Your task to perform on an android device: open app "Gmail" (install if not already installed) Image 0: 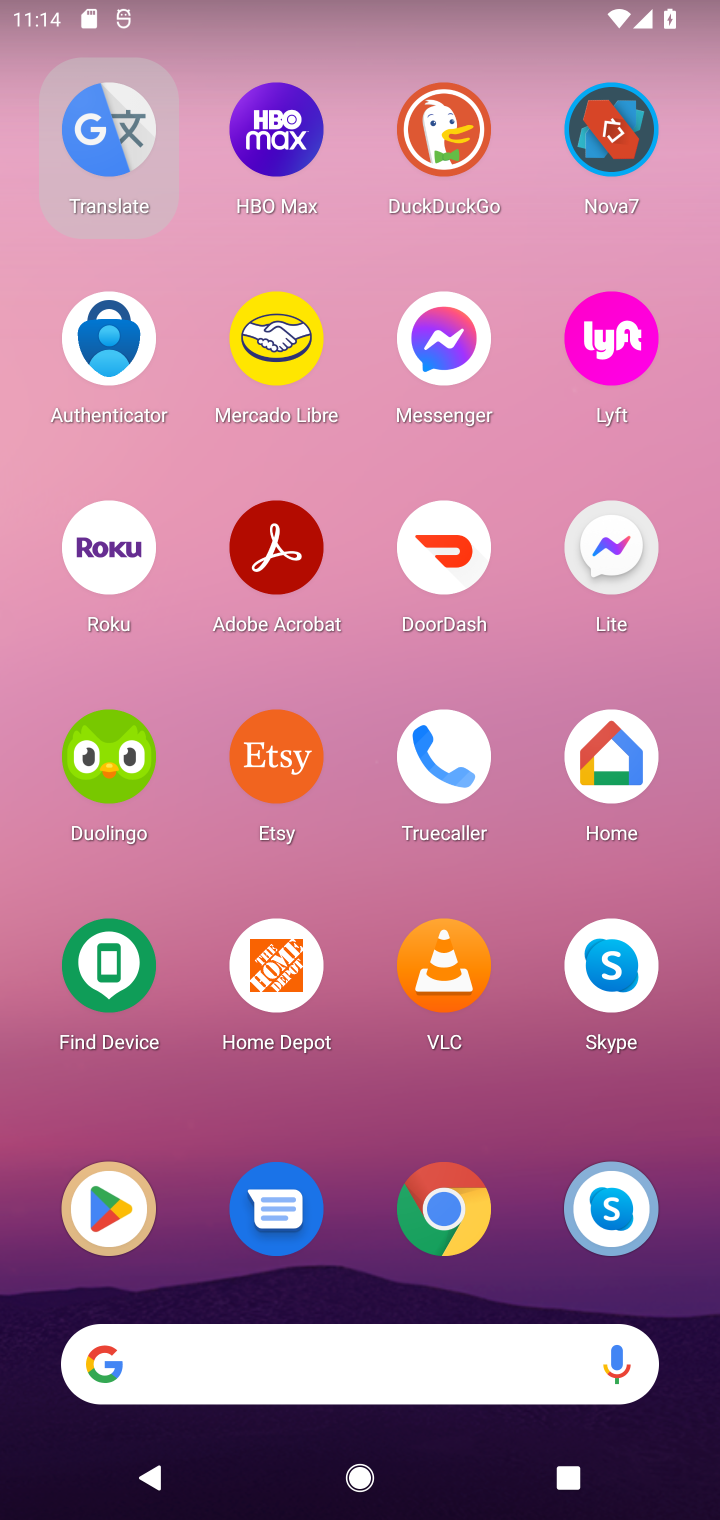
Step 0: drag from (520, 957) to (525, 142)
Your task to perform on an android device: open app "Gmail" (install if not already installed) Image 1: 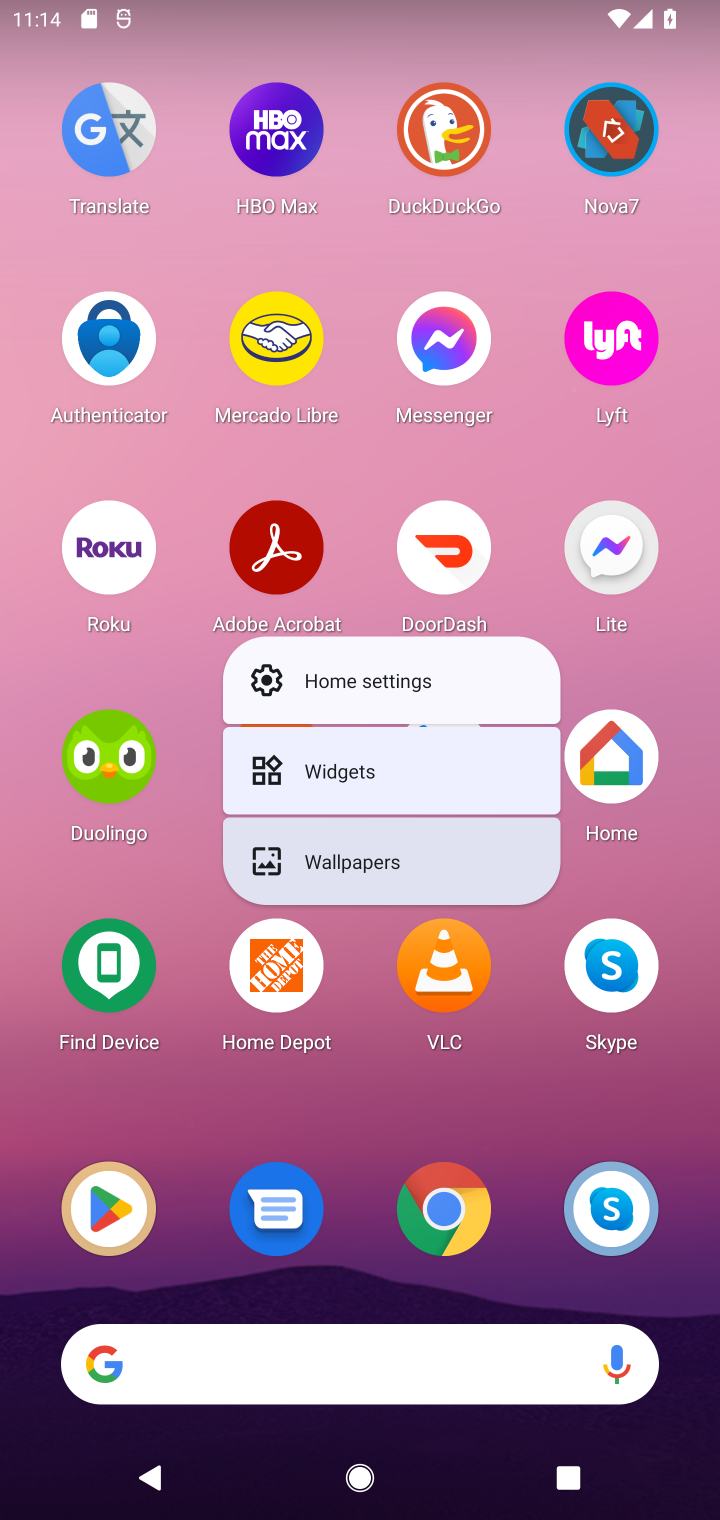
Step 1: click (523, 453)
Your task to perform on an android device: open app "Gmail" (install if not already installed) Image 2: 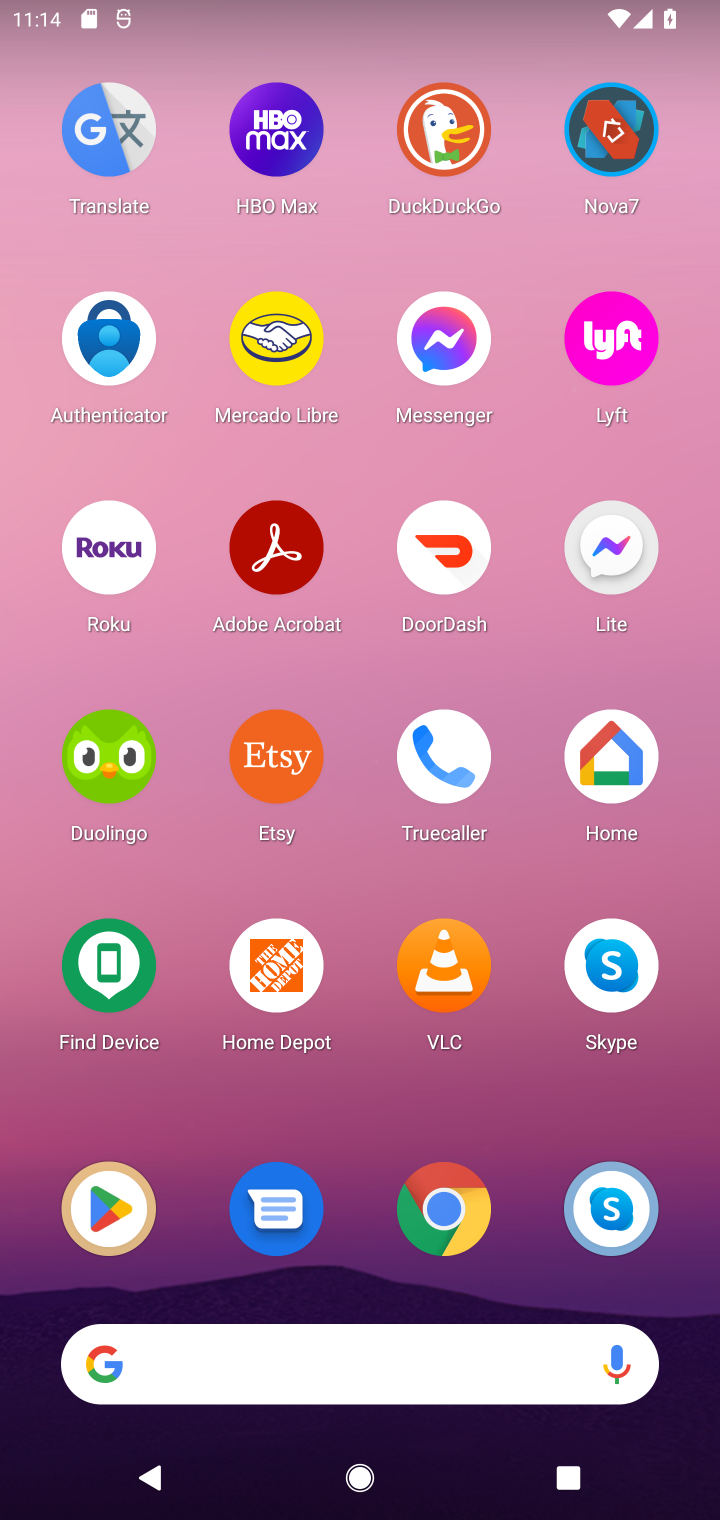
Step 2: drag from (527, 783) to (531, 142)
Your task to perform on an android device: open app "Gmail" (install if not already installed) Image 3: 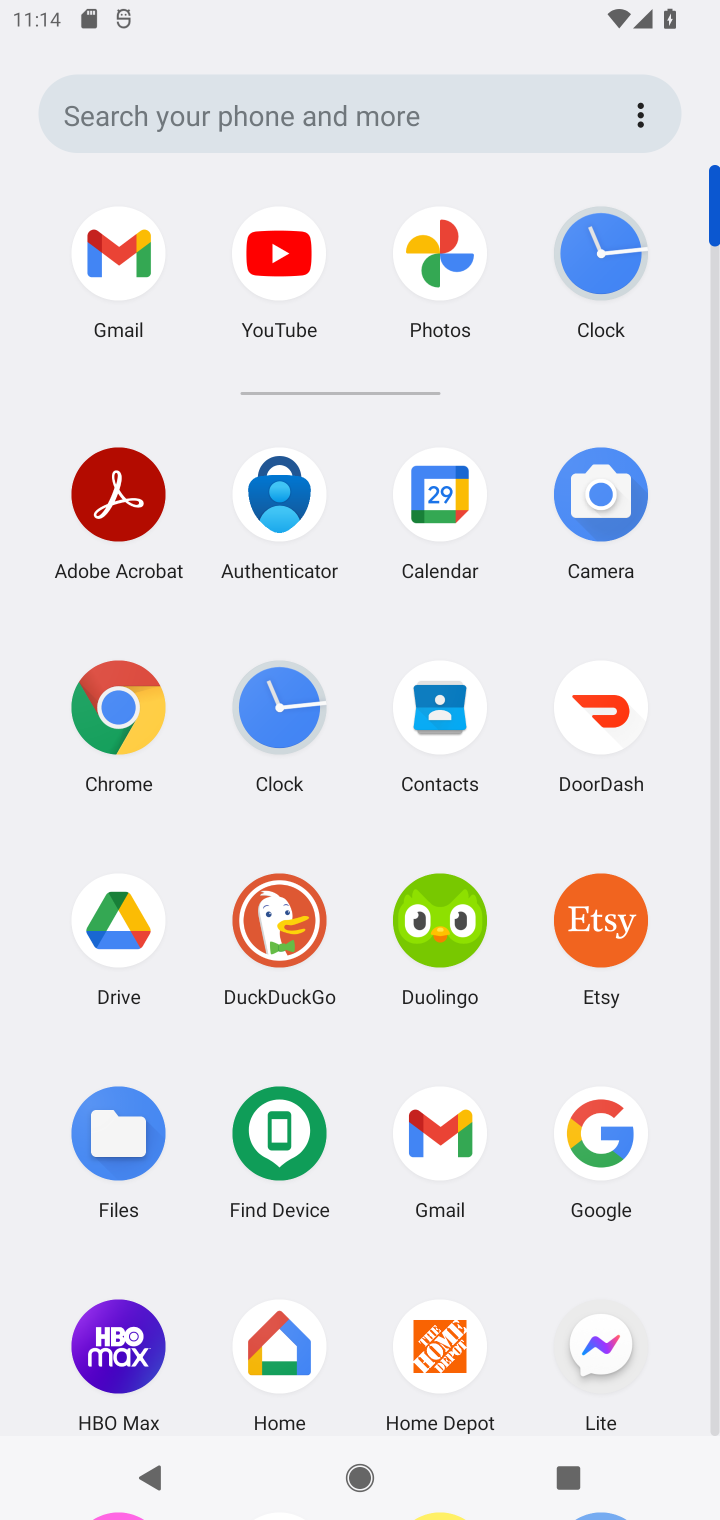
Step 3: drag from (552, 825) to (564, 302)
Your task to perform on an android device: open app "Gmail" (install if not already installed) Image 4: 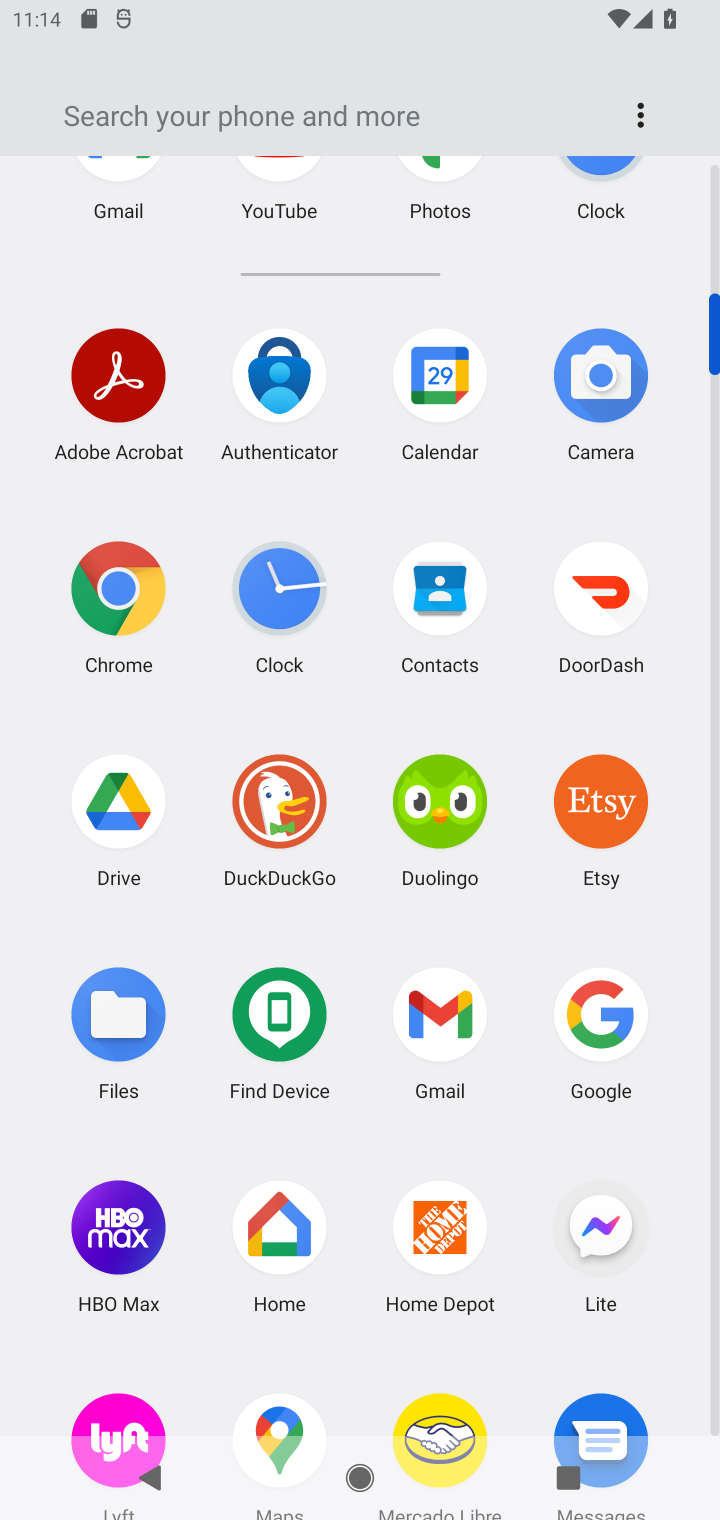
Step 4: drag from (533, 1107) to (536, 541)
Your task to perform on an android device: open app "Gmail" (install if not already installed) Image 5: 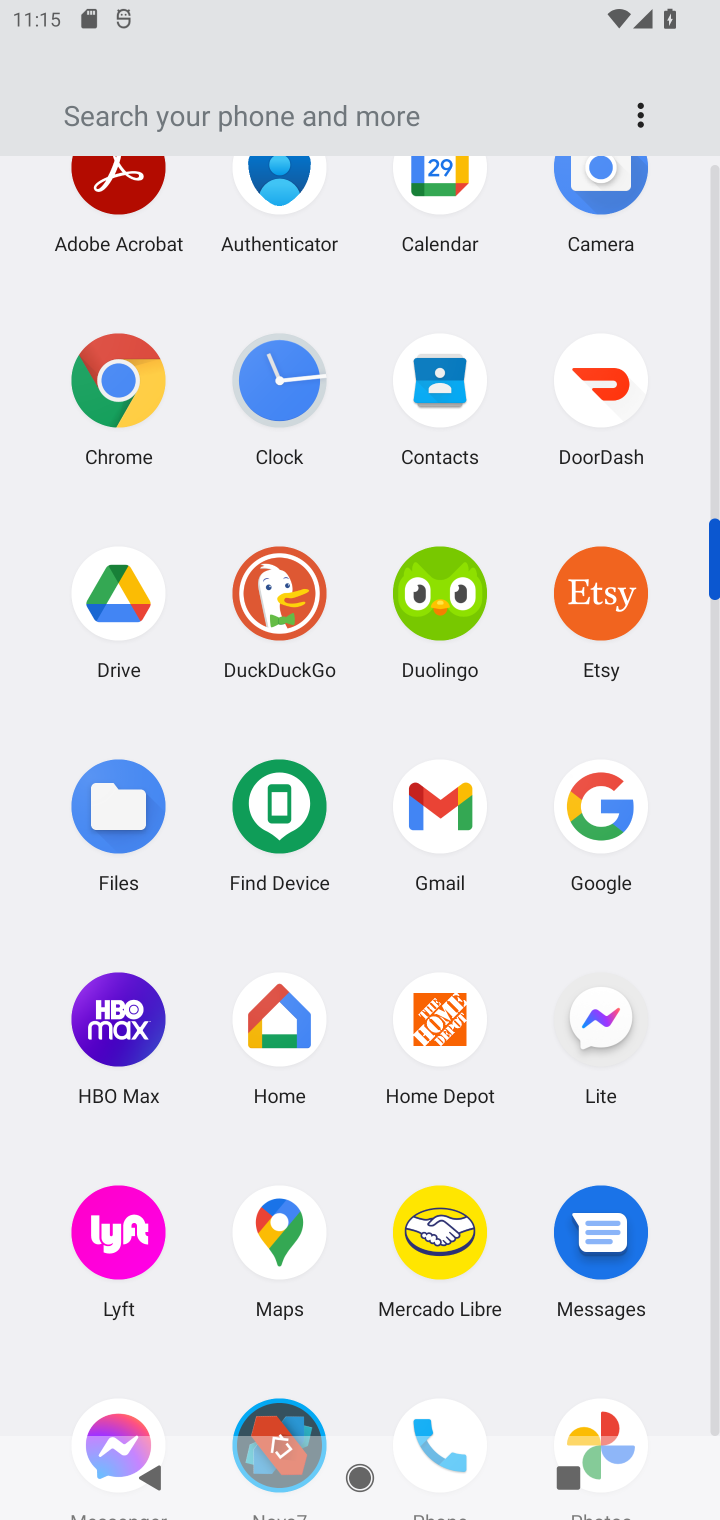
Step 5: drag from (519, 1366) to (553, 437)
Your task to perform on an android device: open app "Gmail" (install if not already installed) Image 6: 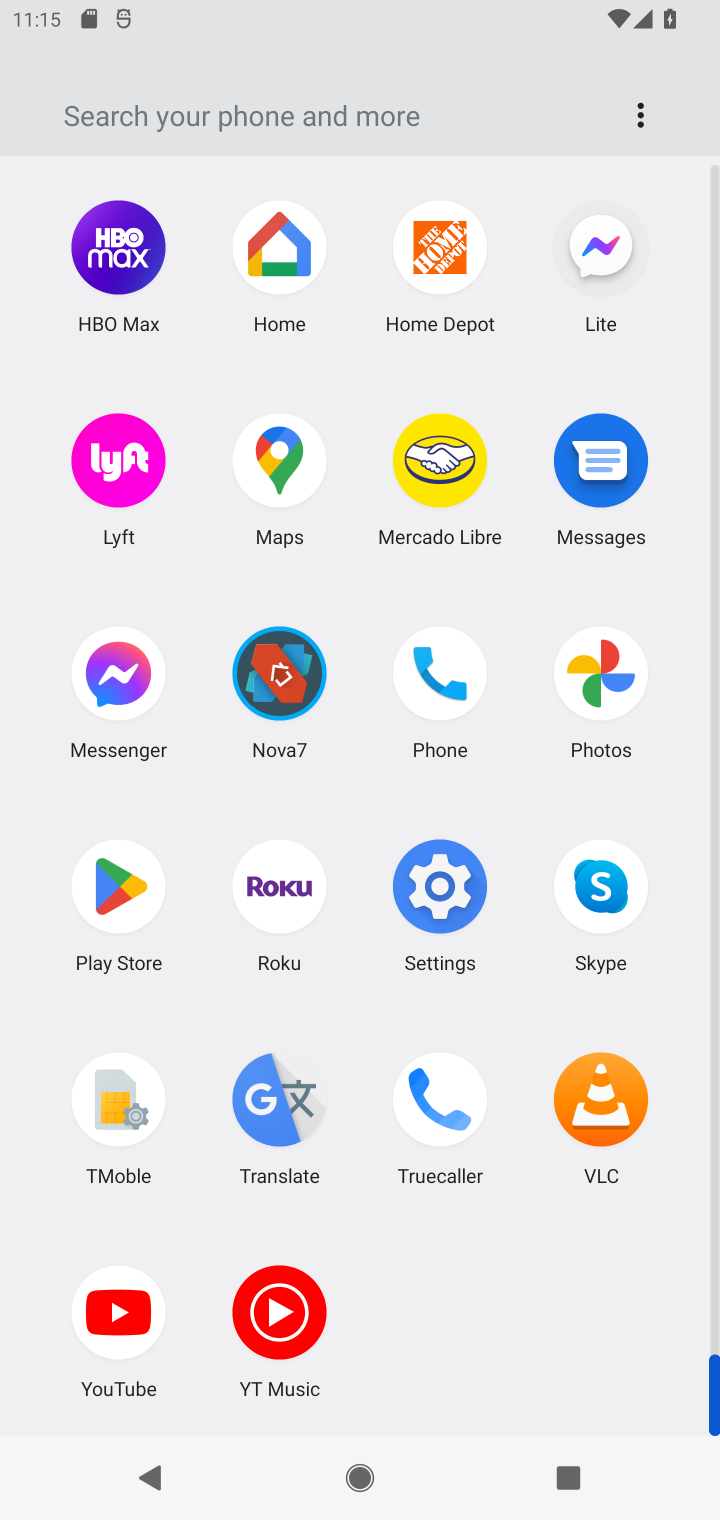
Step 6: click (124, 887)
Your task to perform on an android device: open app "Gmail" (install if not already installed) Image 7: 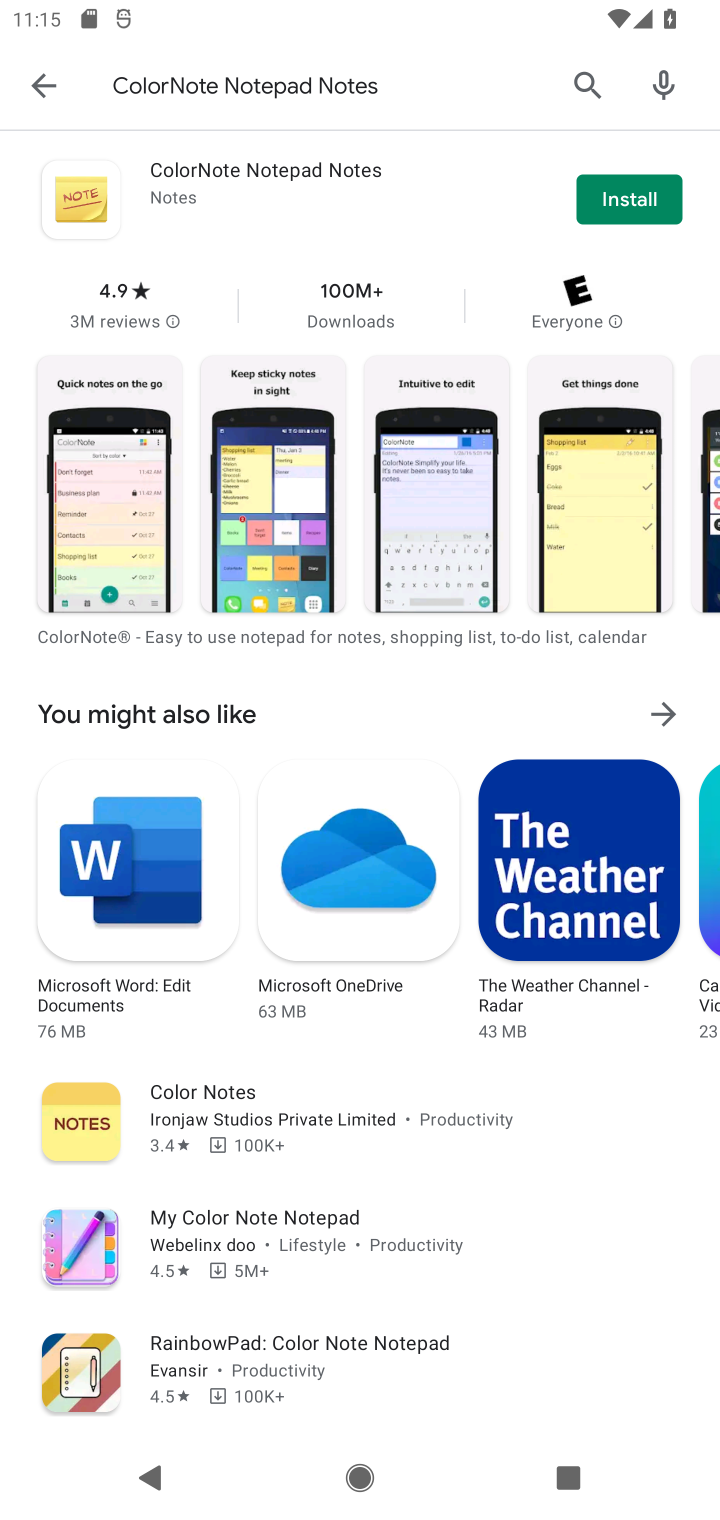
Step 7: click (469, 70)
Your task to perform on an android device: open app "Gmail" (install if not already installed) Image 8: 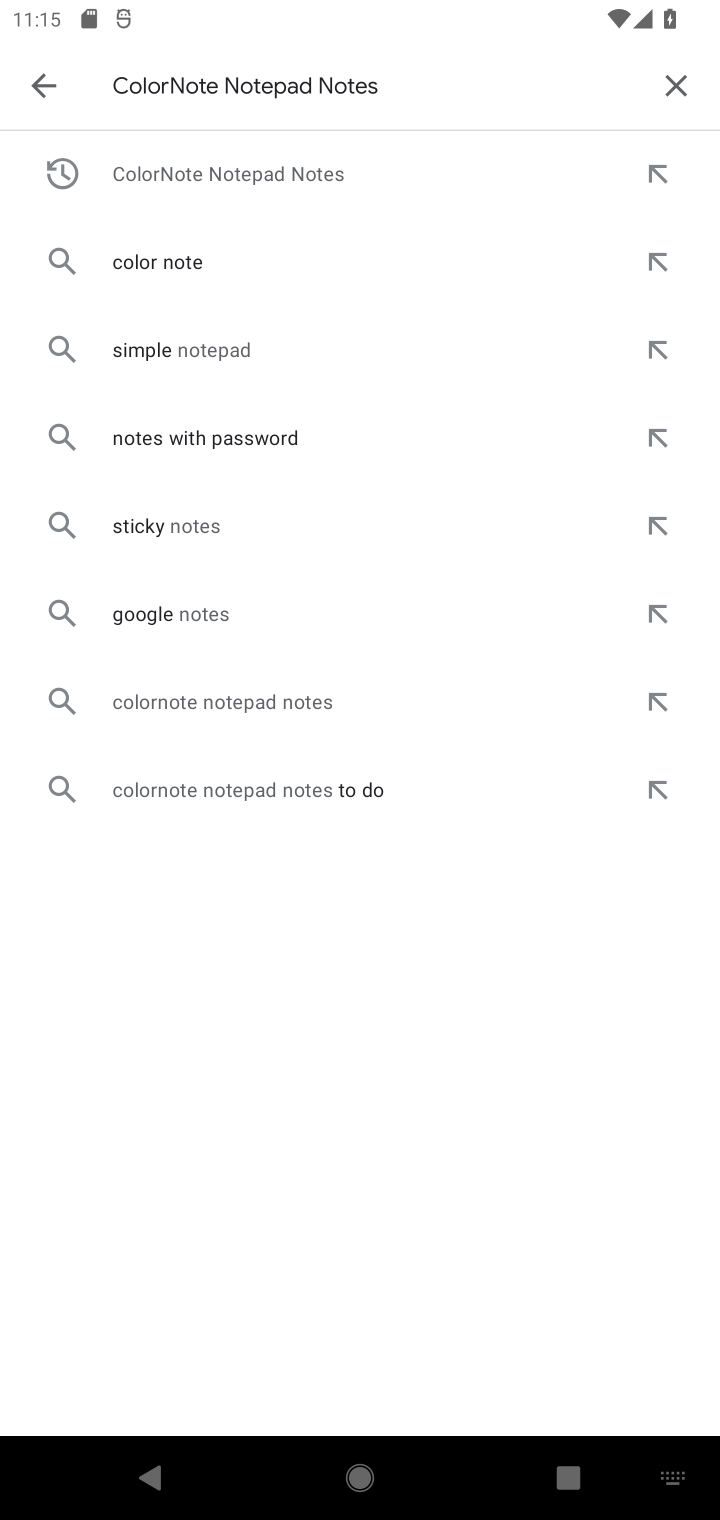
Step 8: click (672, 72)
Your task to perform on an android device: open app "Gmail" (install if not already installed) Image 9: 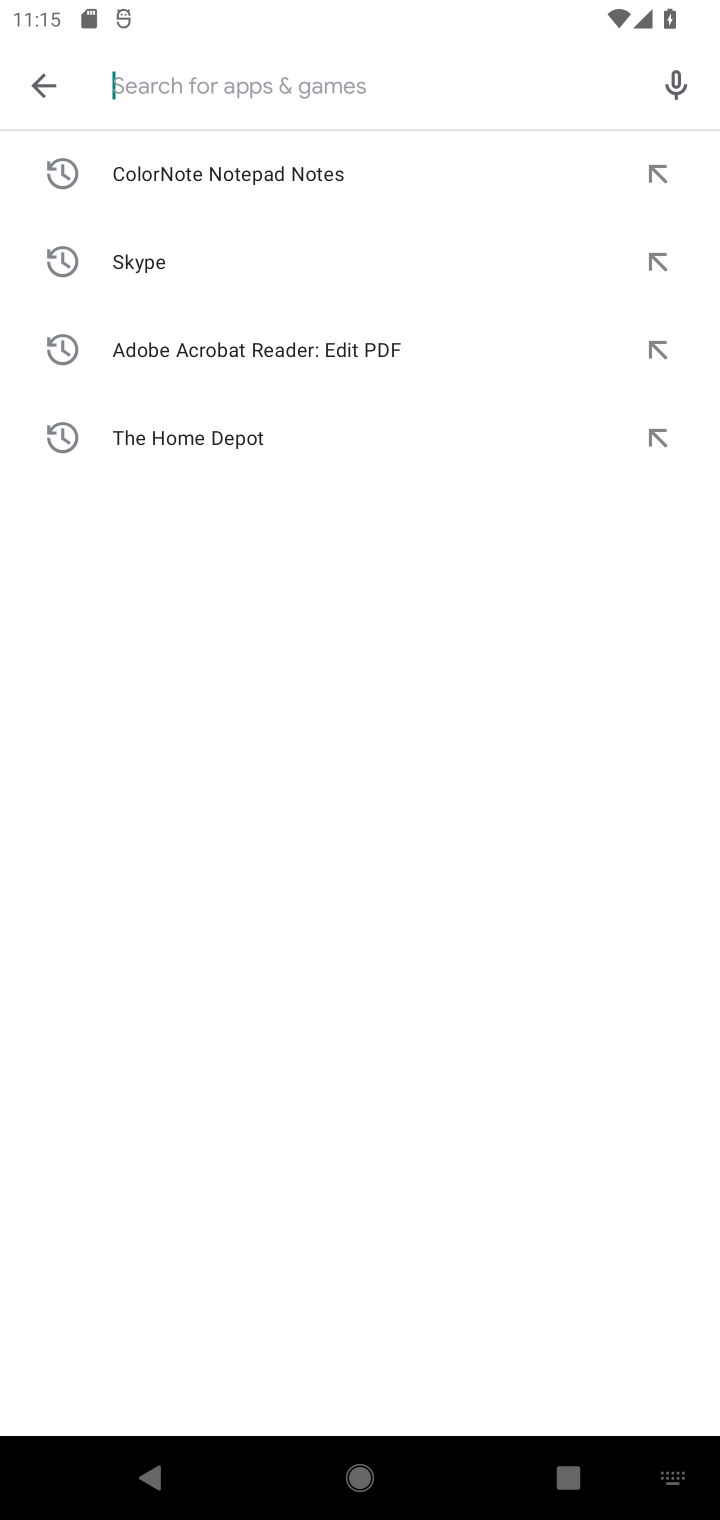
Step 9: type "Gmail"
Your task to perform on an android device: open app "Gmail" (install if not already installed) Image 10: 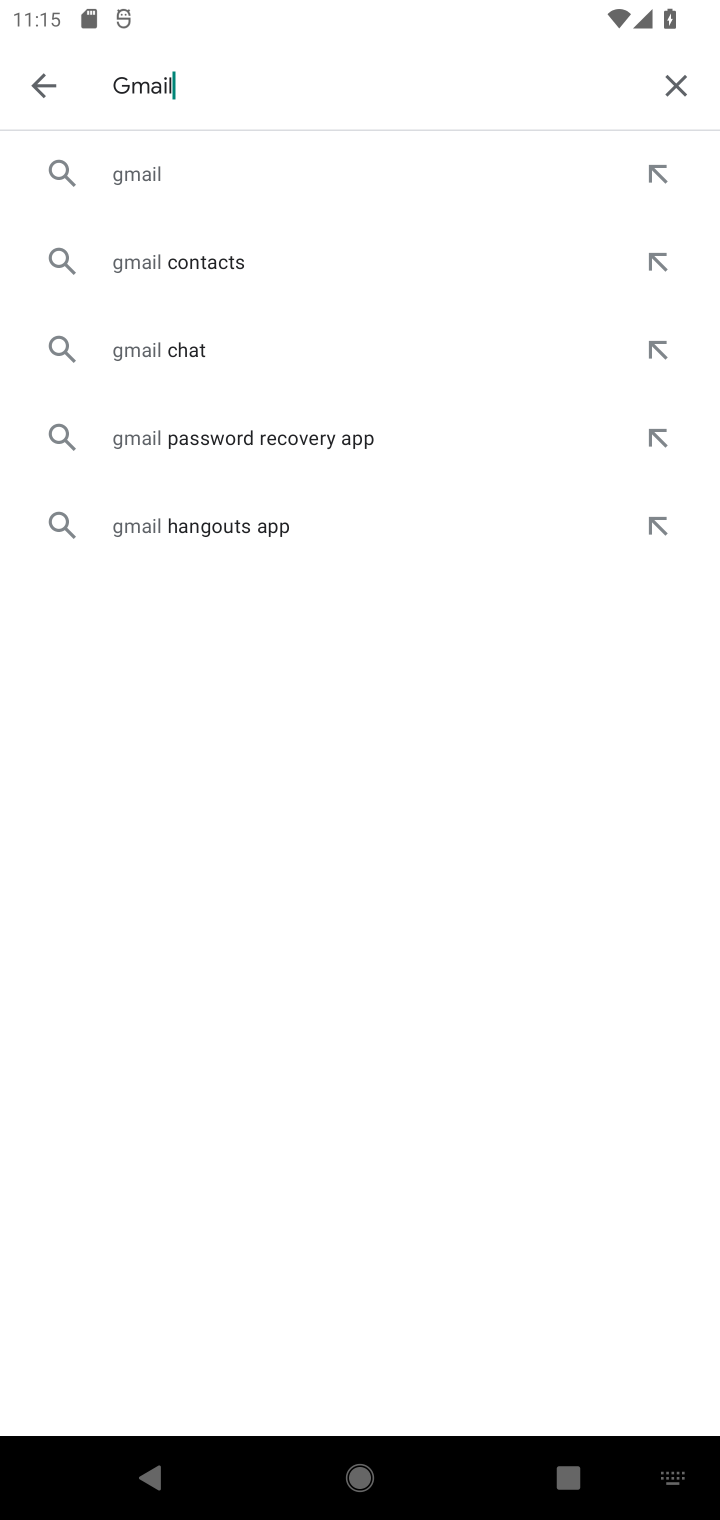
Step 10: press enter
Your task to perform on an android device: open app "Gmail" (install if not already installed) Image 11: 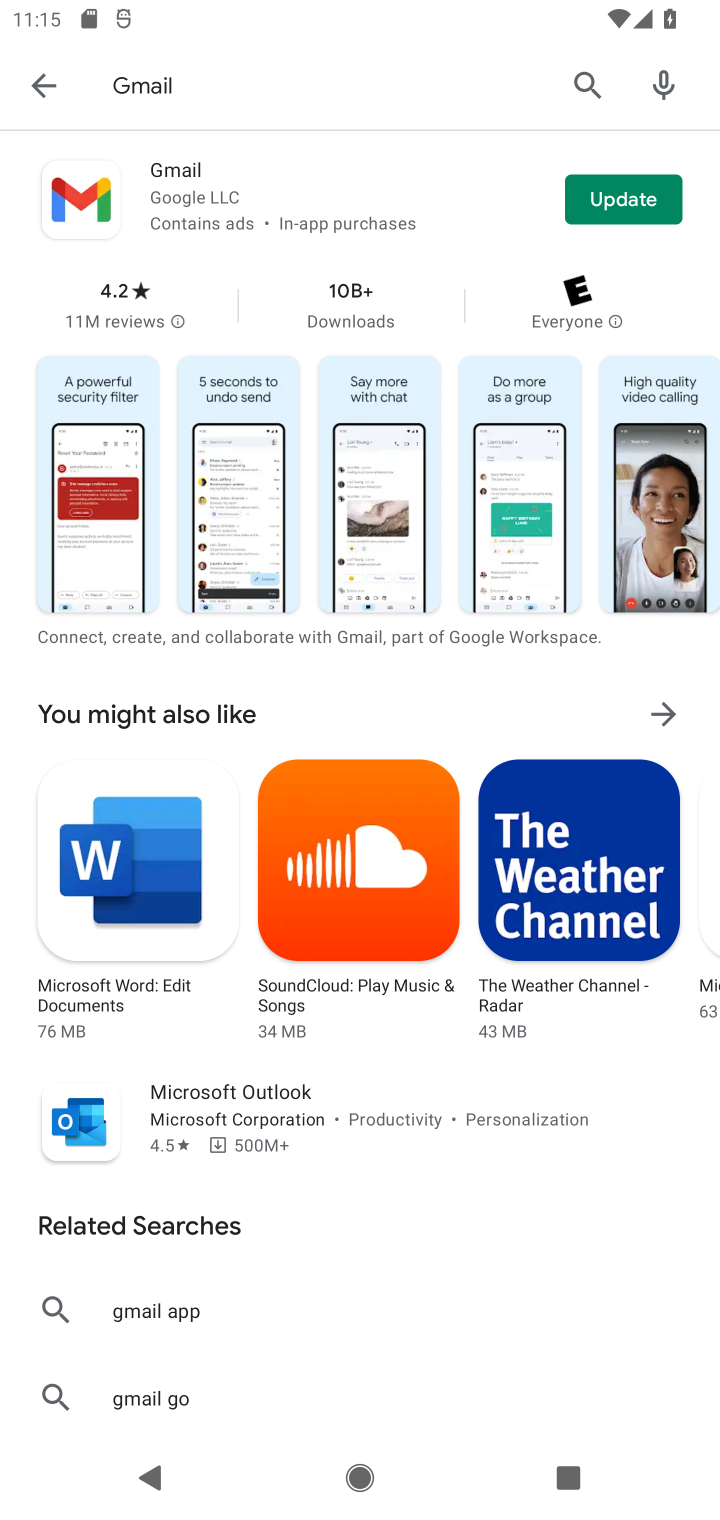
Step 11: click (404, 220)
Your task to perform on an android device: open app "Gmail" (install if not already installed) Image 12: 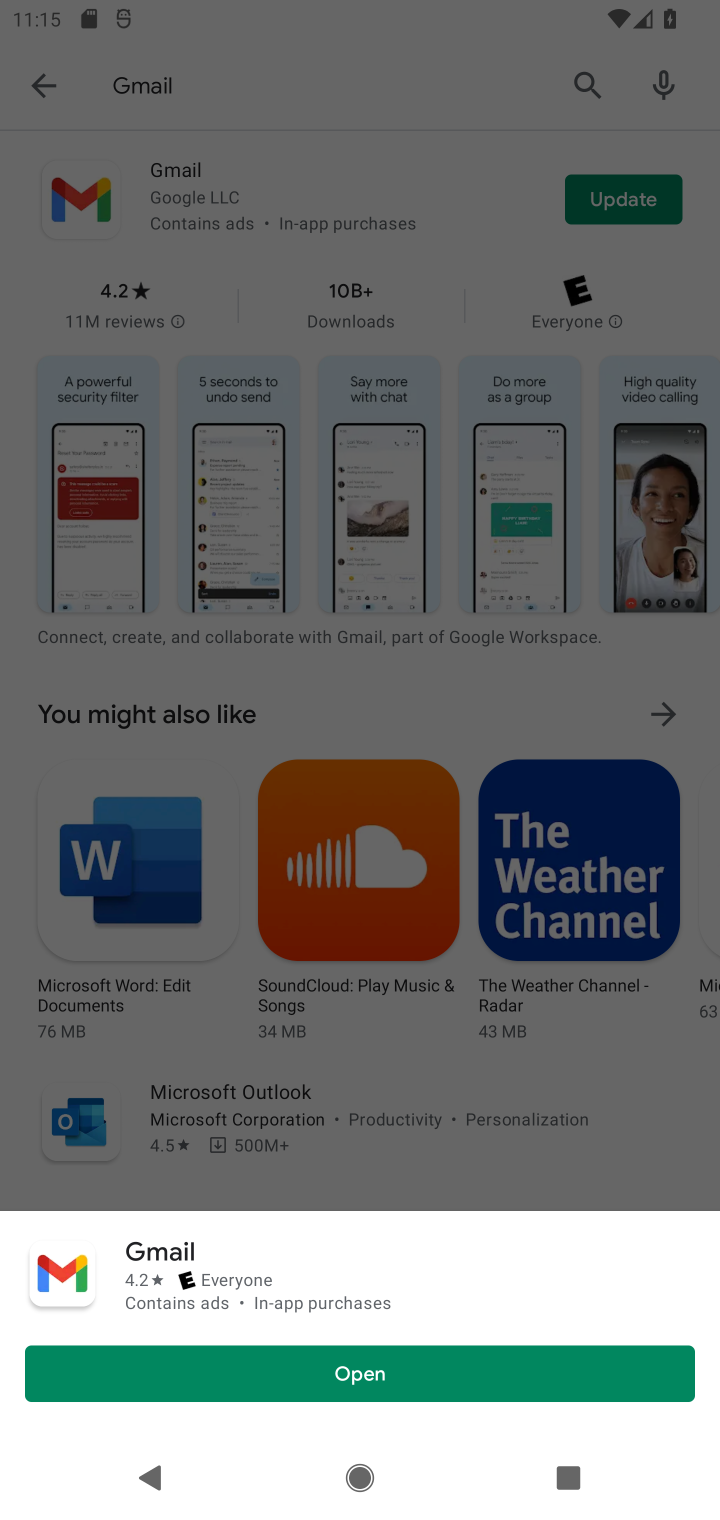
Step 12: click (454, 1379)
Your task to perform on an android device: open app "Gmail" (install if not already installed) Image 13: 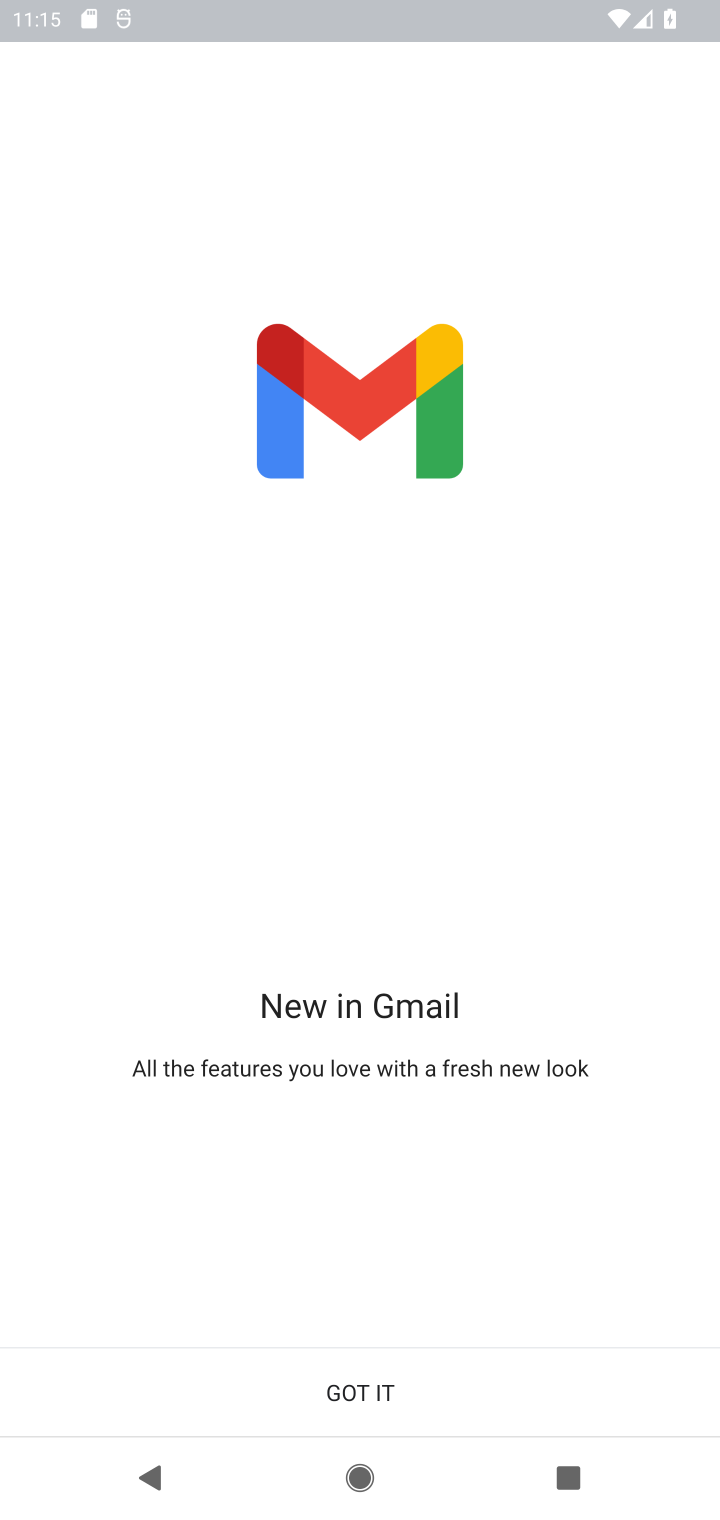
Step 13: click (338, 1406)
Your task to perform on an android device: open app "Gmail" (install if not already installed) Image 14: 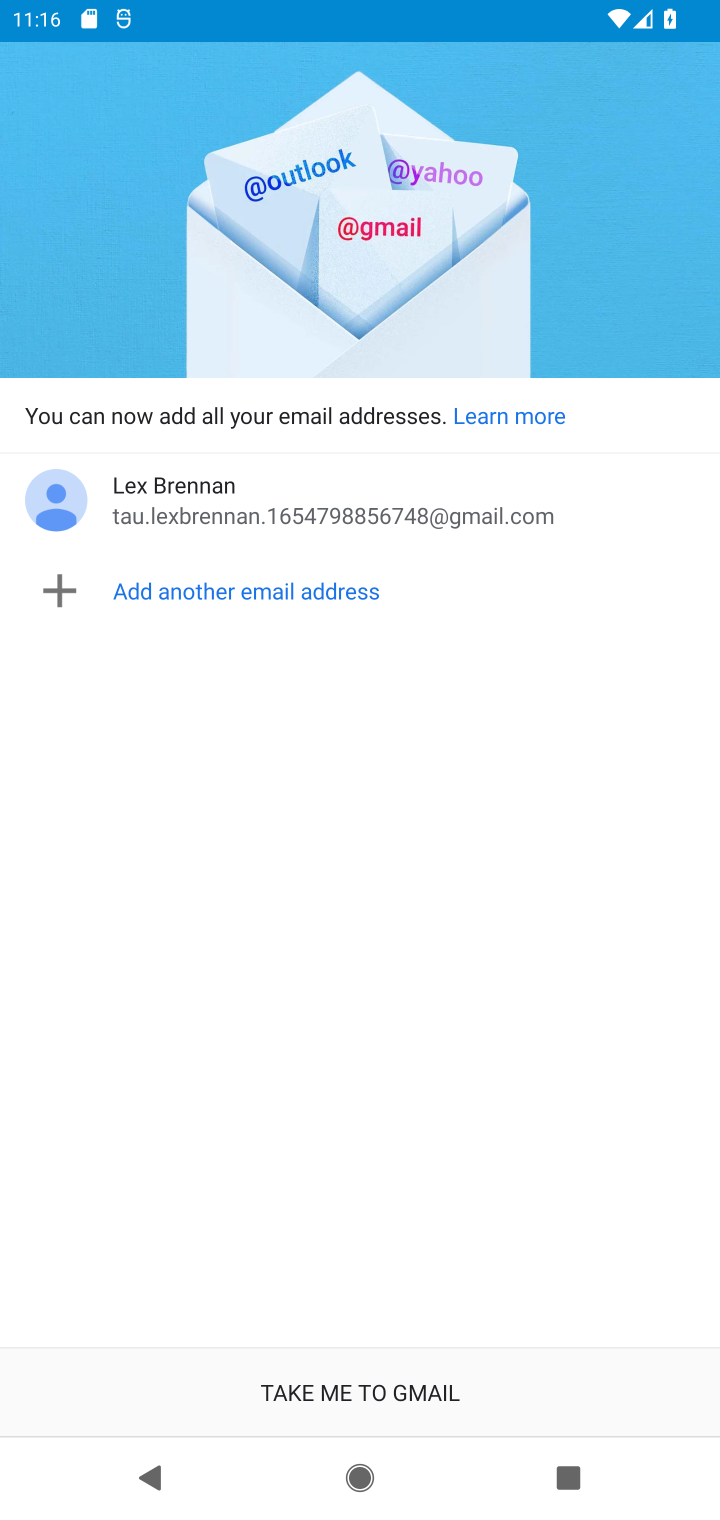
Step 14: task complete